Your task to perform on an android device: Go to internet settings Image 0: 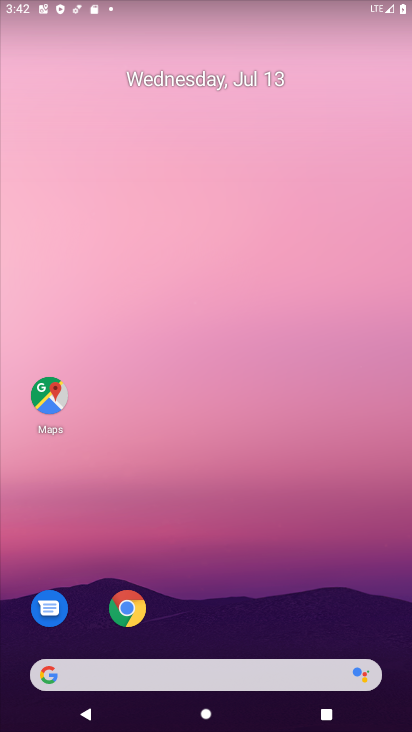
Step 0: drag from (228, 625) to (261, 88)
Your task to perform on an android device: Go to internet settings Image 1: 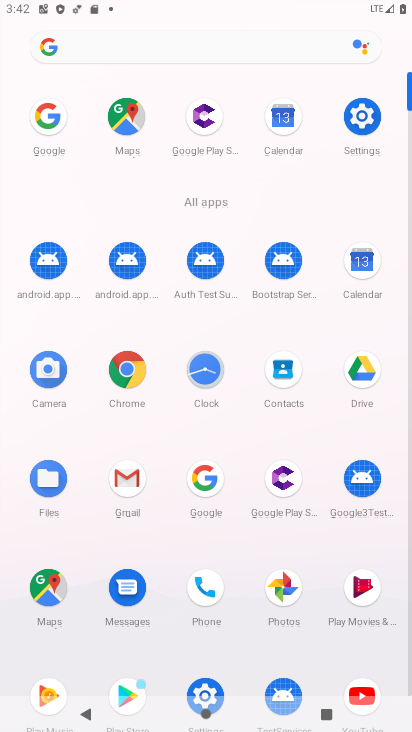
Step 1: click (201, 696)
Your task to perform on an android device: Go to internet settings Image 2: 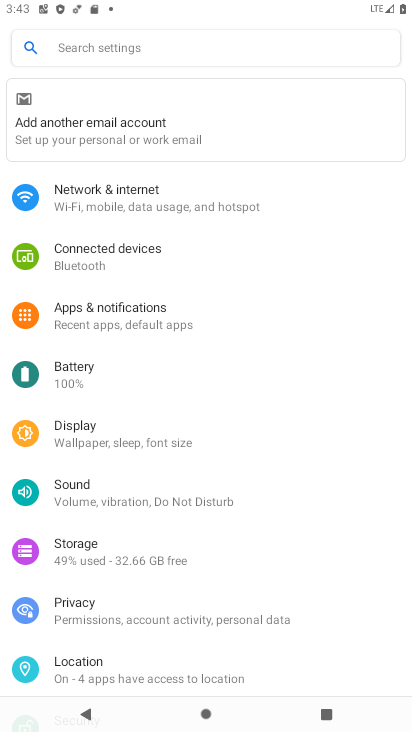
Step 2: click (97, 198)
Your task to perform on an android device: Go to internet settings Image 3: 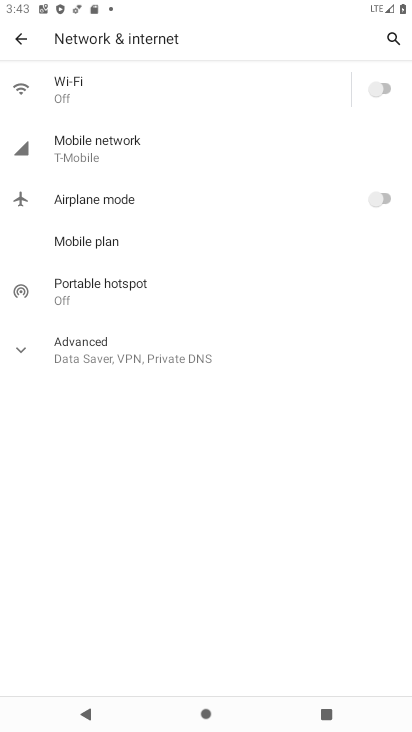
Step 3: click (149, 145)
Your task to perform on an android device: Go to internet settings Image 4: 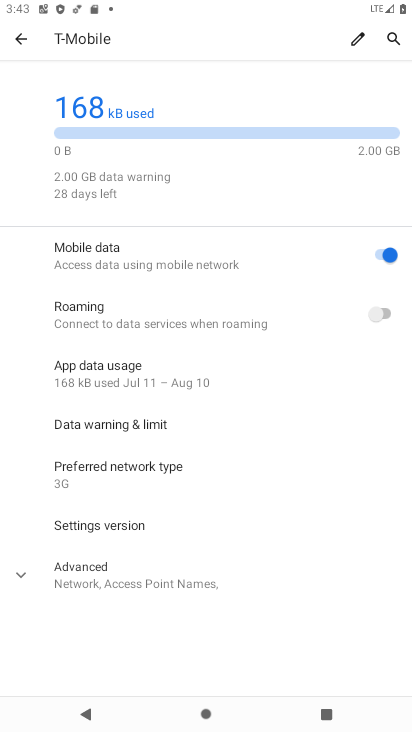
Step 4: task complete